Your task to perform on an android device: make emails show in primary in the gmail app Image 0: 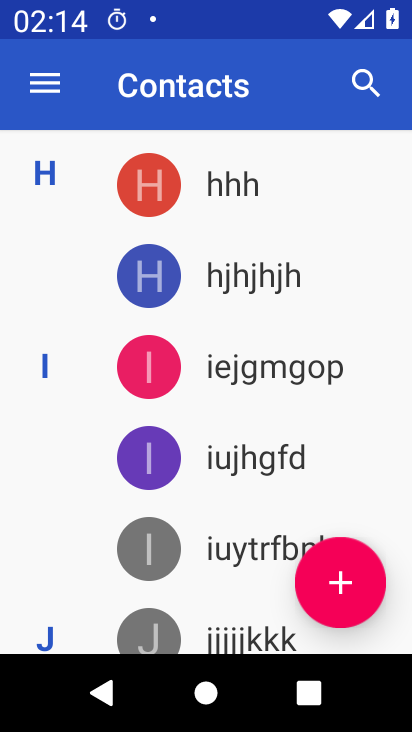
Step 0: press home button
Your task to perform on an android device: make emails show in primary in the gmail app Image 1: 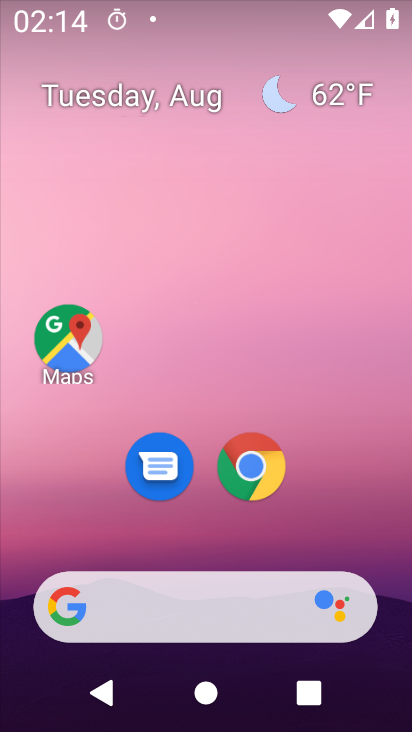
Step 1: drag from (363, 478) to (332, 107)
Your task to perform on an android device: make emails show in primary in the gmail app Image 2: 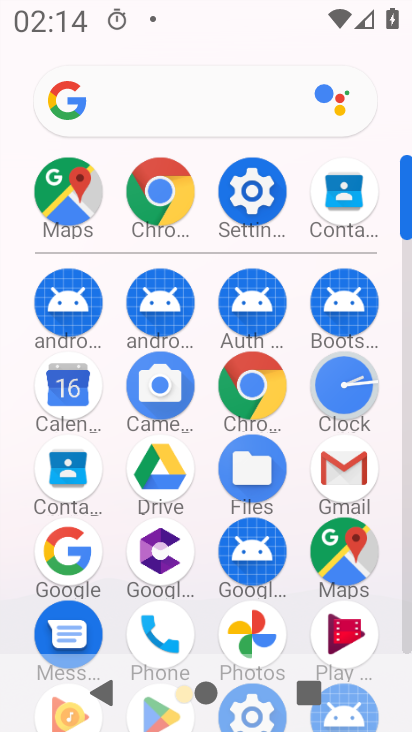
Step 2: click (350, 466)
Your task to perform on an android device: make emails show in primary in the gmail app Image 3: 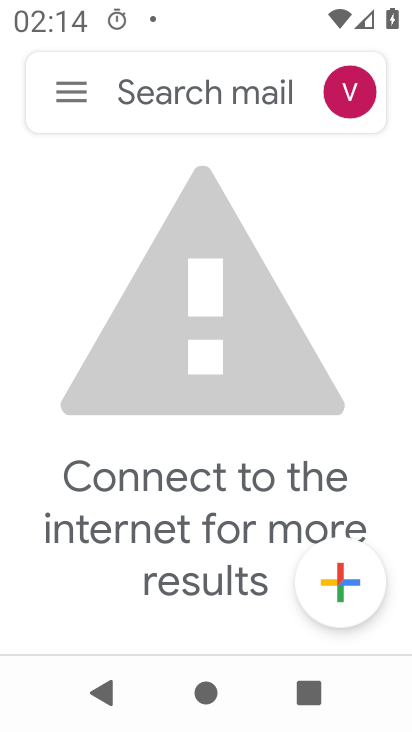
Step 3: click (65, 86)
Your task to perform on an android device: make emails show in primary in the gmail app Image 4: 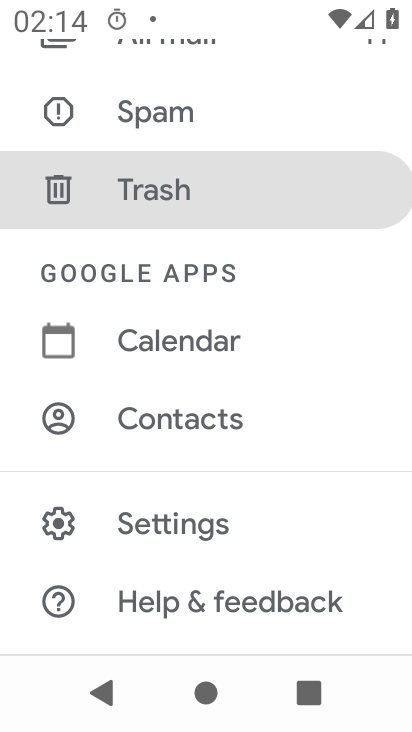
Step 4: click (249, 528)
Your task to perform on an android device: make emails show in primary in the gmail app Image 5: 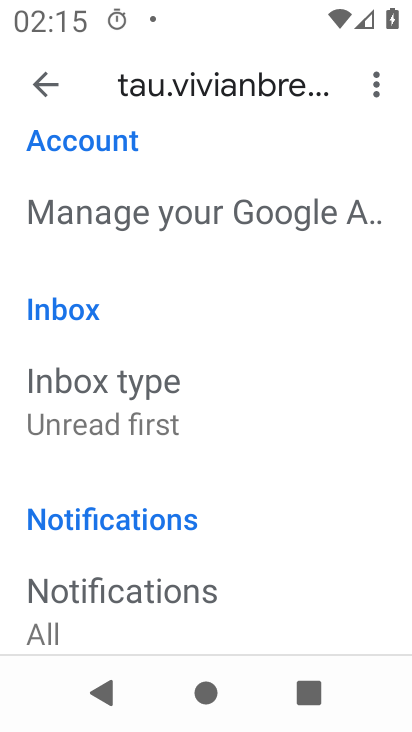
Step 5: click (120, 408)
Your task to perform on an android device: make emails show in primary in the gmail app Image 6: 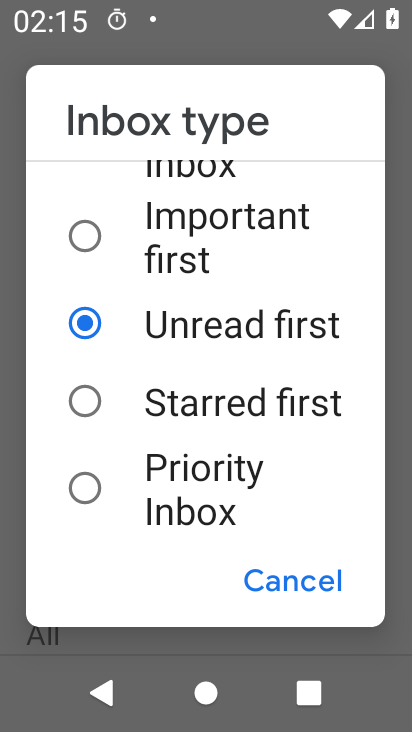
Step 6: drag from (234, 248) to (240, 383)
Your task to perform on an android device: make emails show in primary in the gmail app Image 7: 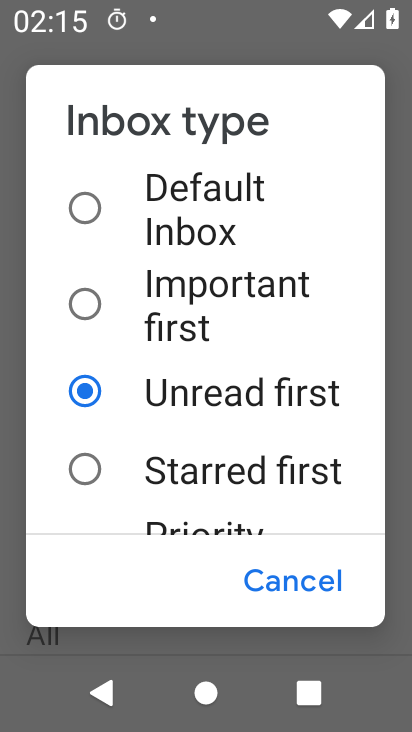
Step 7: click (170, 232)
Your task to perform on an android device: make emails show in primary in the gmail app Image 8: 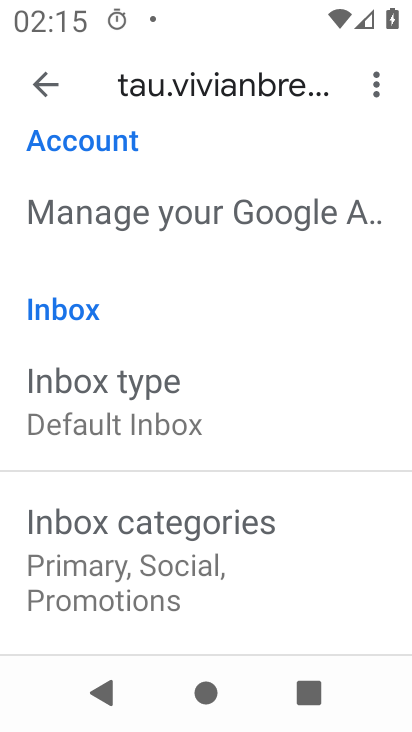
Step 8: click (190, 564)
Your task to perform on an android device: make emails show in primary in the gmail app Image 9: 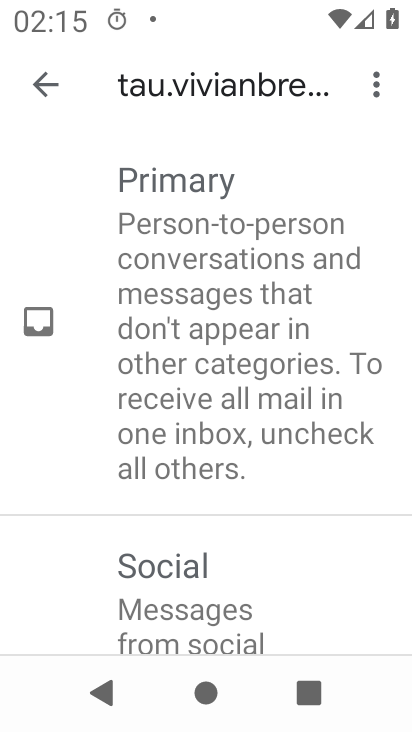
Step 9: drag from (319, 554) to (323, 362)
Your task to perform on an android device: make emails show in primary in the gmail app Image 10: 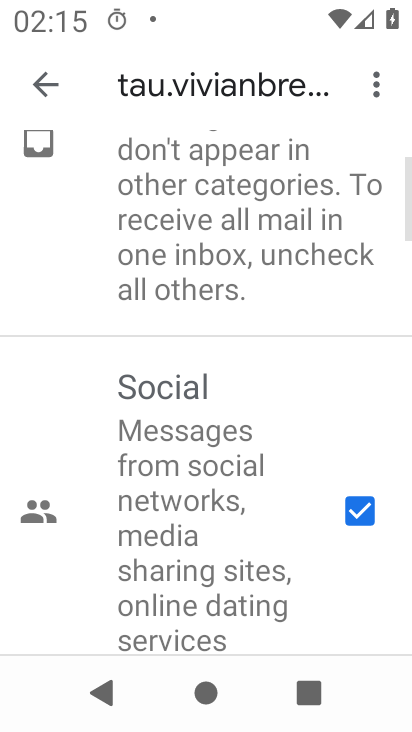
Step 10: drag from (299, 570) to (291, 345)
Your task to perform on an android device: make emails show in primary in the gmail app Image 11: 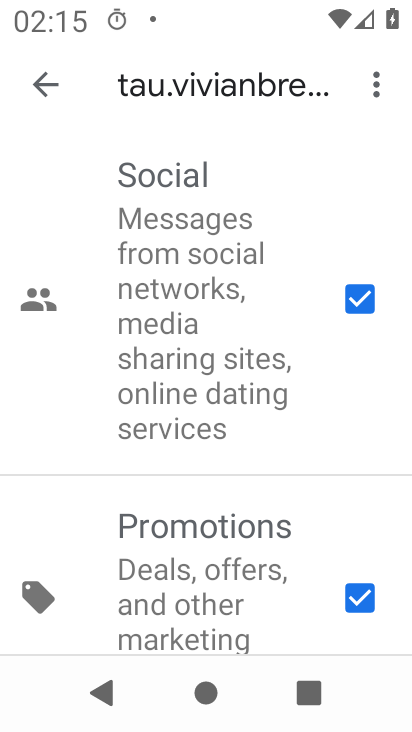
Step 11: click (358, 304)
Your task to perform on an android device: make emails show in primary in the gmail app Image 12: 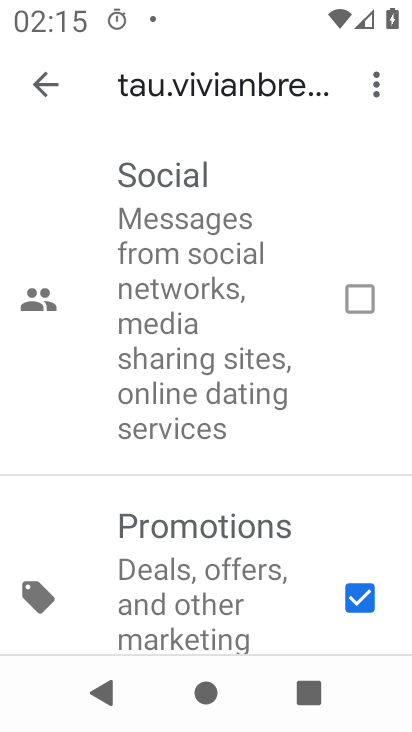
Step 12: click (357, 602)
Your task to perform on an android device: make emails show in primary in the gmail app Image 13: 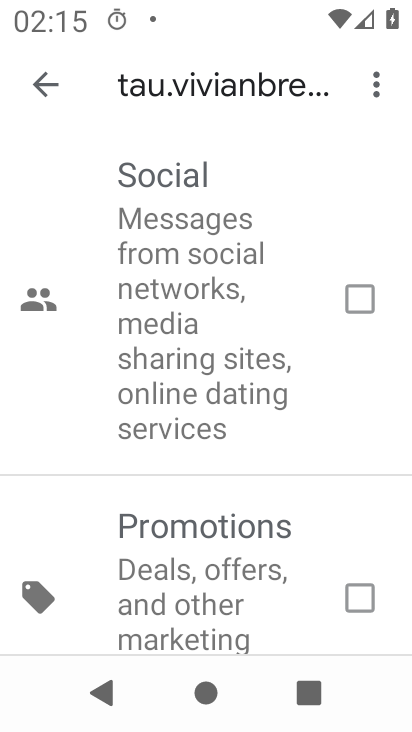
Step 13: task complete